Your task to perform on an android device: Open Google Maps and go to "Timeline" Image 0: 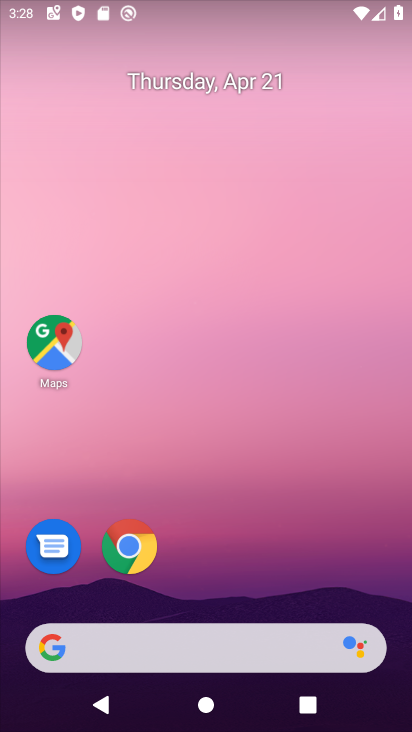
Step 0: drag from (193, 478) to (254, 88)
Your task to perform on an android device: Open Google Maps and go to "Timeline" Image 1: 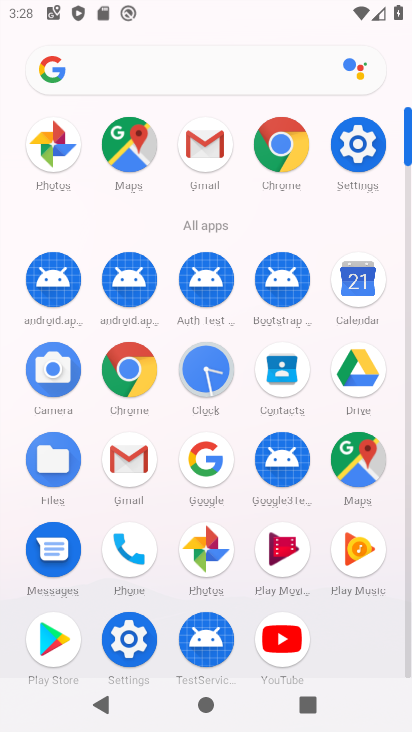
Step 1: click (353, 453)
Your task to perform on an android device: Open Google Maps and go to "Timeline" Image 2: 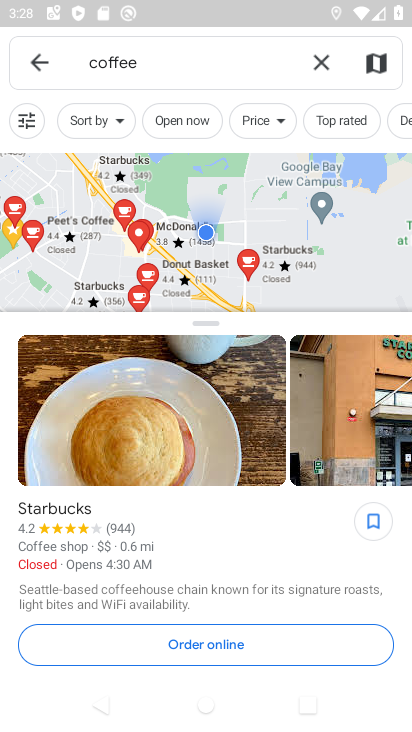
Step 2: click (40, 65)
Your task to perform on an android device: Open Google Maps and go to "Timeline" Image 3: 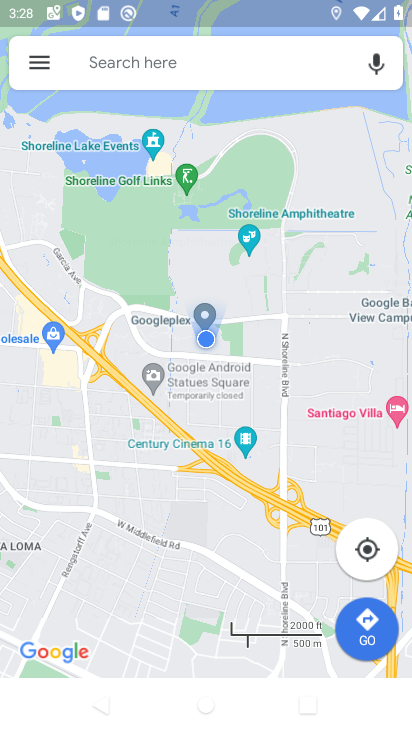
Step 3: click (40, 65)
Your task to perform on an android device: Open Google Maps and go to "Timeline" Image 4: 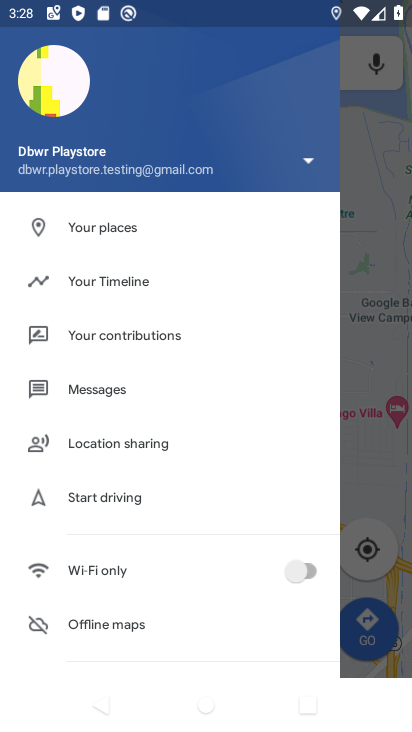
Step 4: click (175, 277)
Your task to perform on an android device: Open Google Maps and go to "Timeline" Image 5: 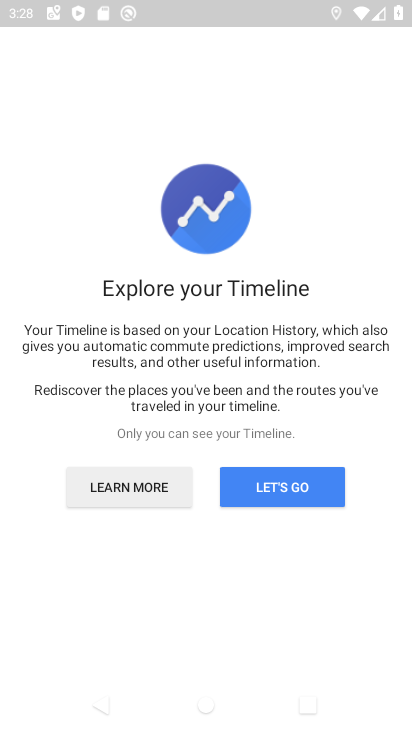
Step 5: click (255, 487)
Your task to perform on an android device: Open Google Maps and go to "Timeline" Image 6: 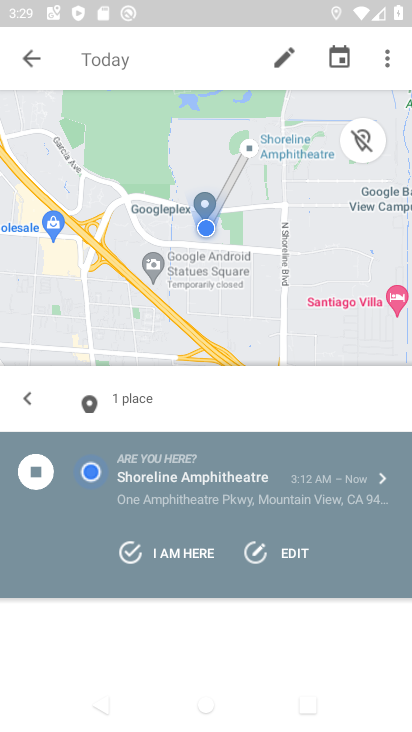
Step 6: task complete